Your task to perform on an android device: find photos in the google photos app Image 0: 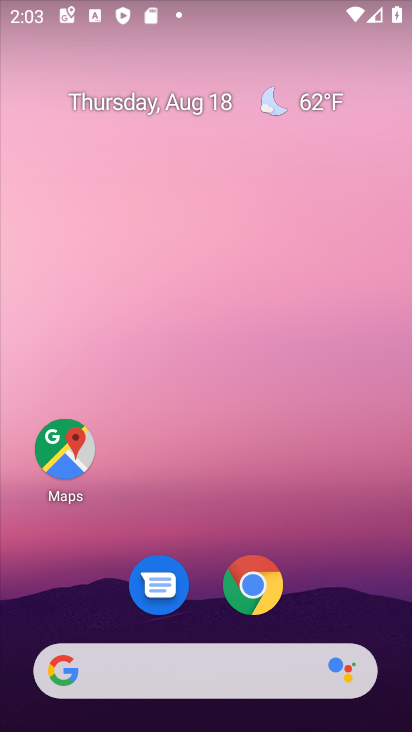
Step 0: drag from (231, 485) to (274, 12)
Your task to perform on an android device: find photos in the google photos app Image 1: 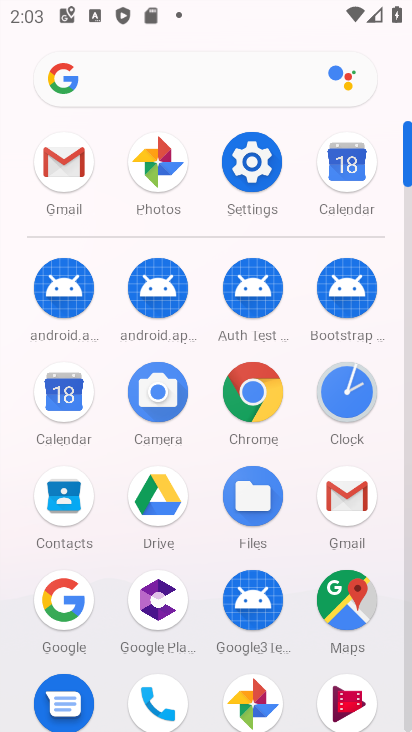
Step 1: click (167, 161)
Your task to perform on an android device: find photos in the google photos app Image 2: 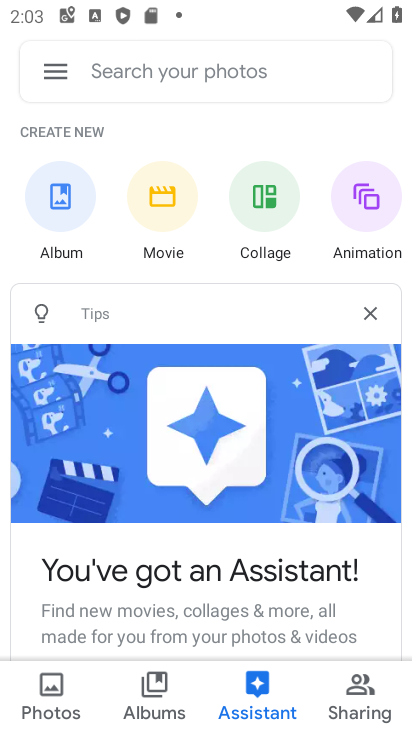
Step 2: click (41, 702)
Your task to perform on an android device: find photos in the google photos app Image 3: 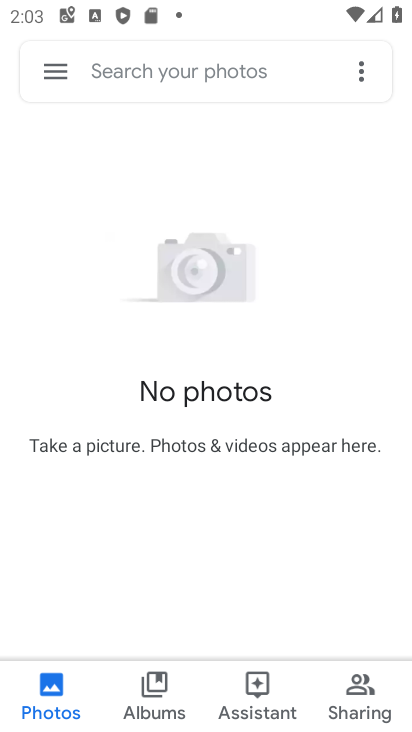
Step 3: task complete